Your task to perform on an android device: When is my next meeting? Image 0: 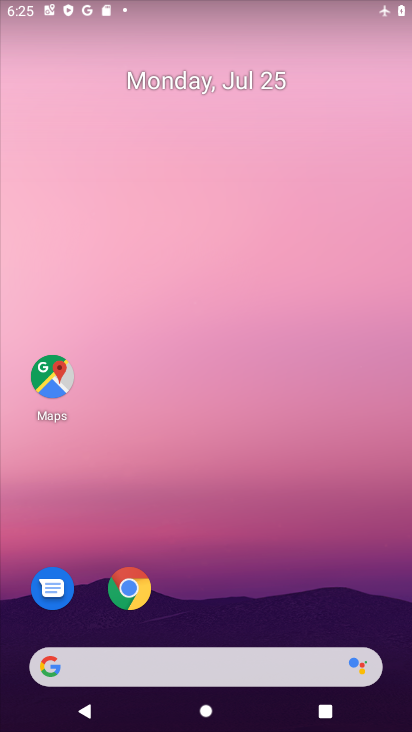
Step 0: drag from (243, 546) to (271, 176)
Your task to perform on an android device: When is my next meeting? Image 1: 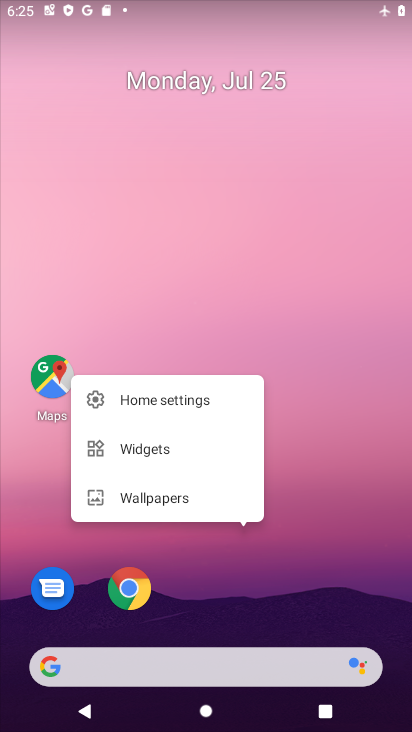
Step 1: click (347, 470)
Your task to perform on an android device: When is my next meeting? Image 2: 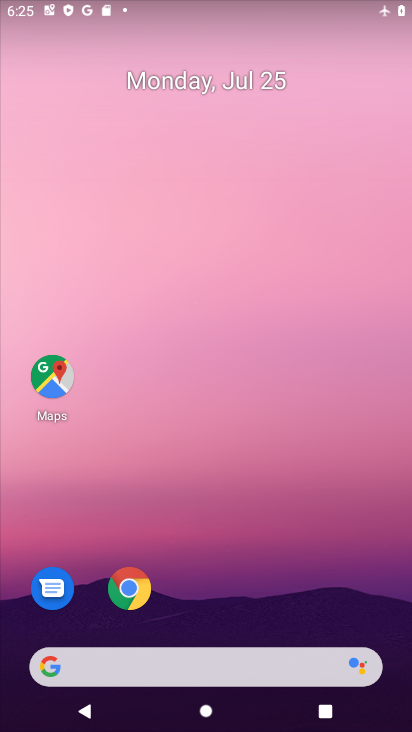
Step 2: drag from (208, 556) to (330, 170)
Your task to perform on an android device: When is my next meeting? Image 3: 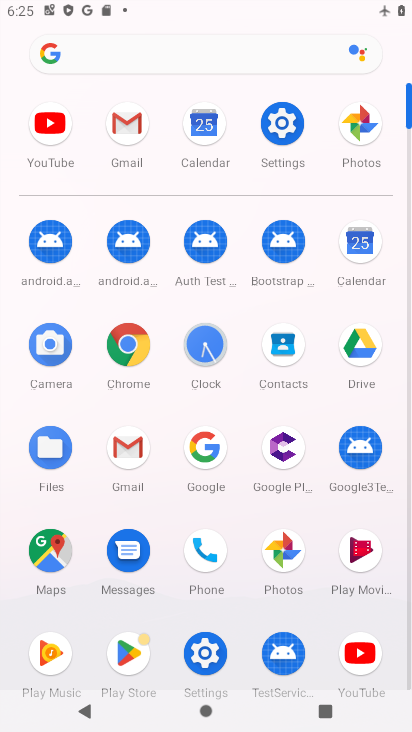
Step 3: click (350, 256)
Your task to perform on an android device: When is my next meeting? Image 4: 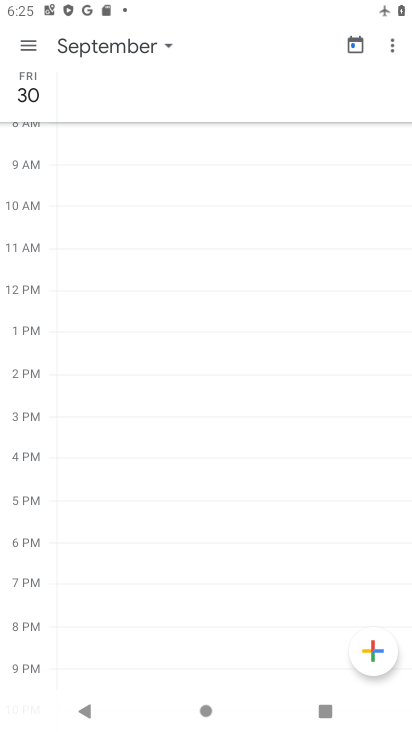
Step 4: task complete